Your task to perform on an android device: change notifications settings Image 0: 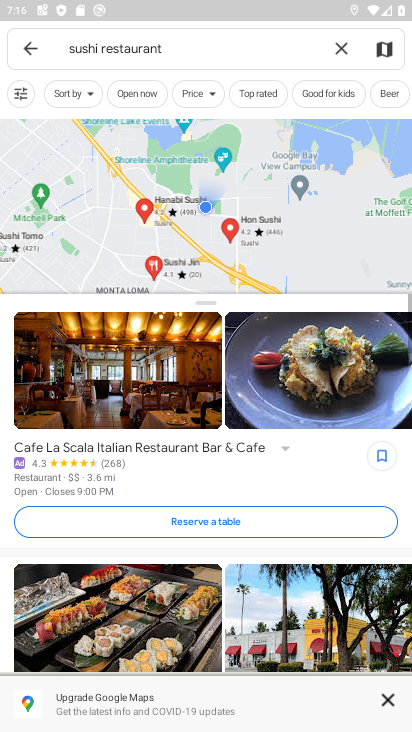
Step 0: press home button
Your task to perform on an android device: change notifications settings Image 1: 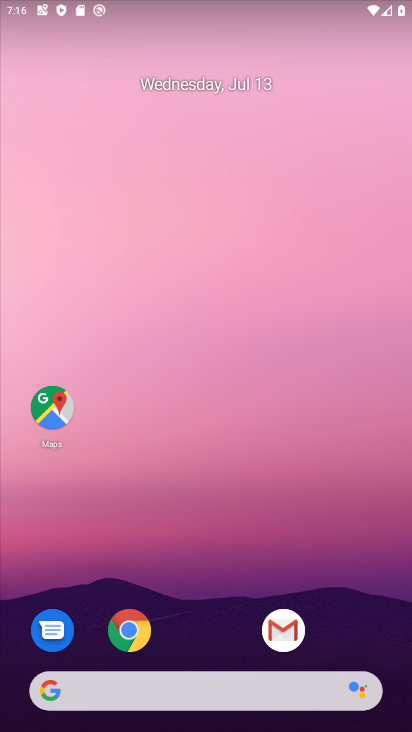
Step 1: drag from (174, 703) to (247, 207)
Your task to perform on an android device: change notifications settings Image 2: 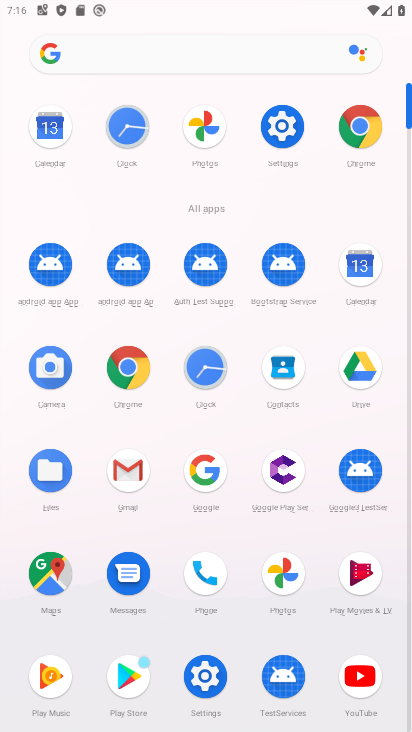
Step 2: drag from (271, 143) to (239, 648)
Your task to perform on an android device: change notifications settings Image 3: 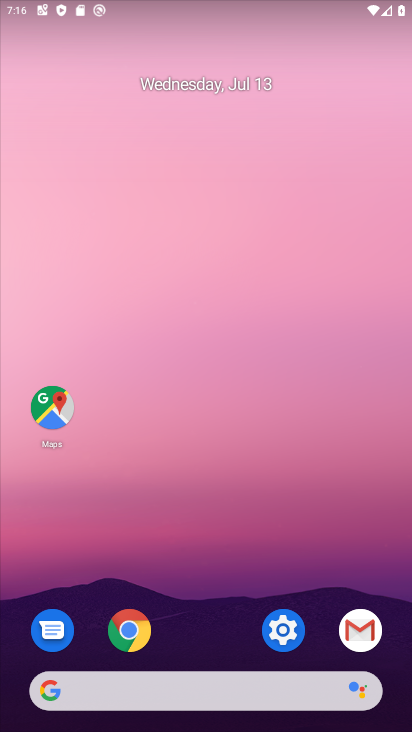
Step 3: click (270, 629)
Your task to perform on an android device: change notifications settings Image 4: 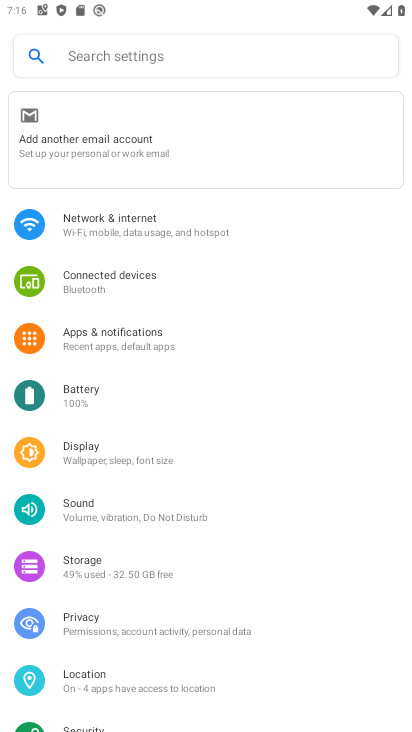
Step 4: click (132, 61)
Your task to perform on an android device: change notifications settings Image 5: 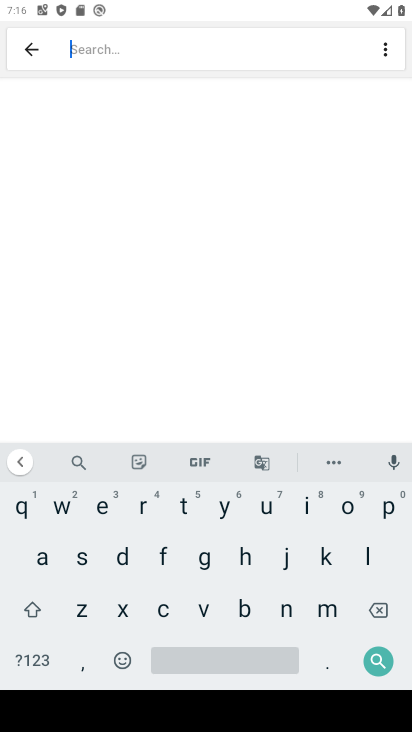
Step 5: click (285, 608)
Your task to perform on an android device: change notifications settings Image 6: 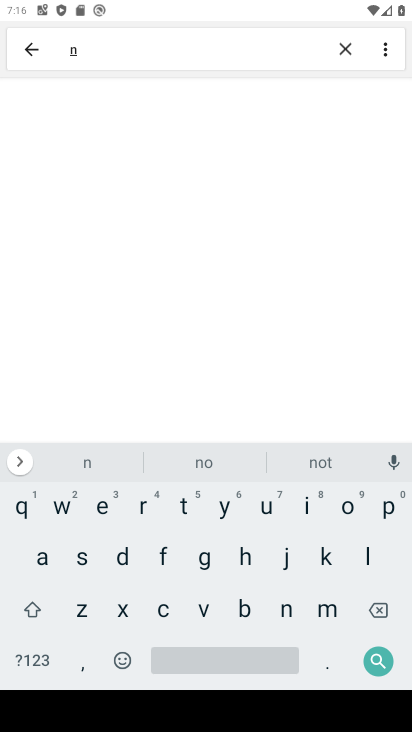
Step 6: click (352, 507)
Your task to perform on an android device: change notifications settings Image 7: 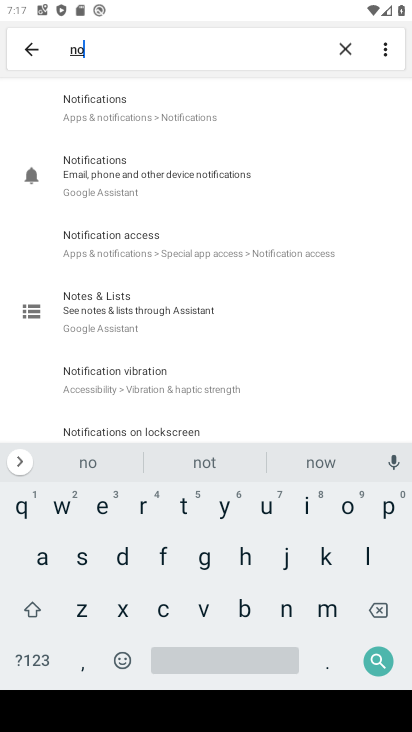
Step 7: click (178, 104)
Your task to perform on an android device: change notifications settings Image 8: 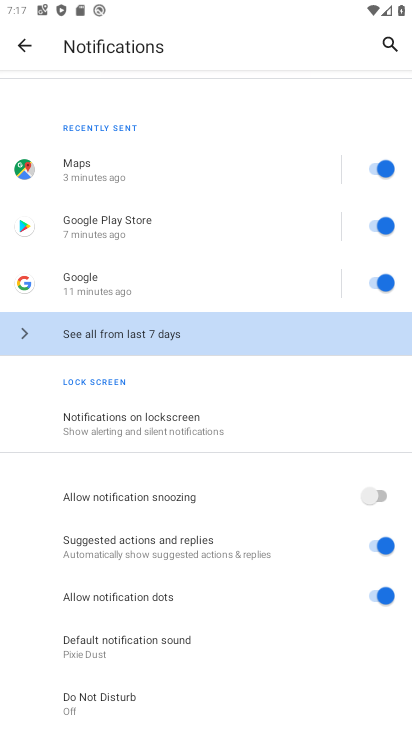
Step 8: click (103, 416)
Your task to perform on an android device: change notifications settings Image 9: 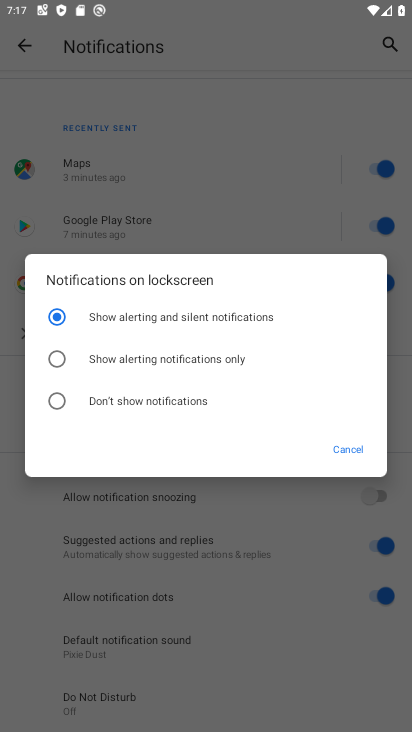
Step 9: task complete